Your task to perform on an android device: When is my next appointment? Image 0: 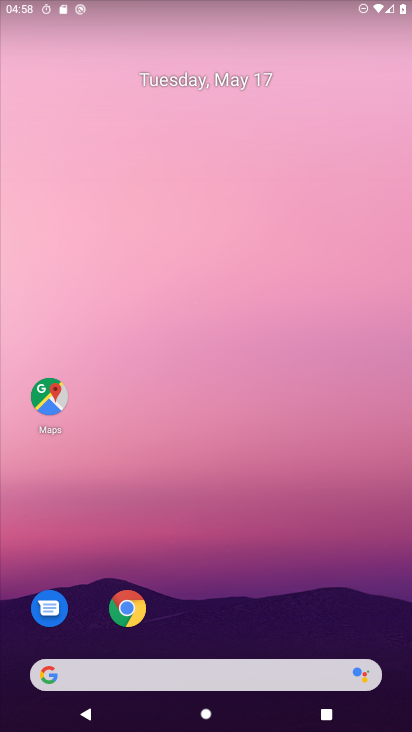
Step 0: drag from (163, 651) to (290, 255)
Your task to perform on an android device: When is my next appointment? Image 1: 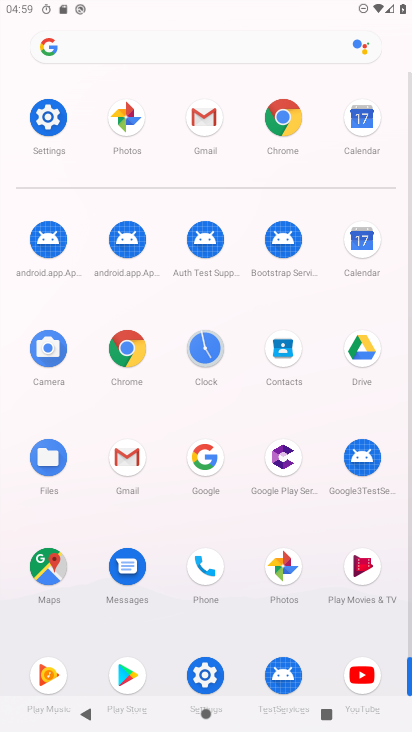
Step 1: click (364, 247)
Your task to perform on an android device: When is my next appointment? Image 2: 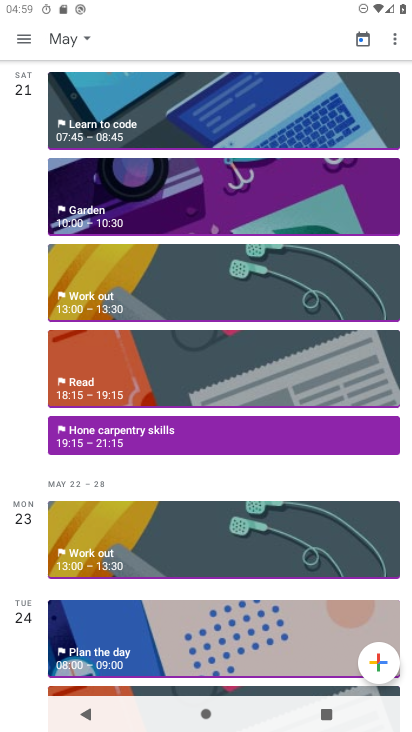
Step 2: drag from (206, 93) to (217, 424)
Your task to perform on an android device: When is my next appointment? Image 3: 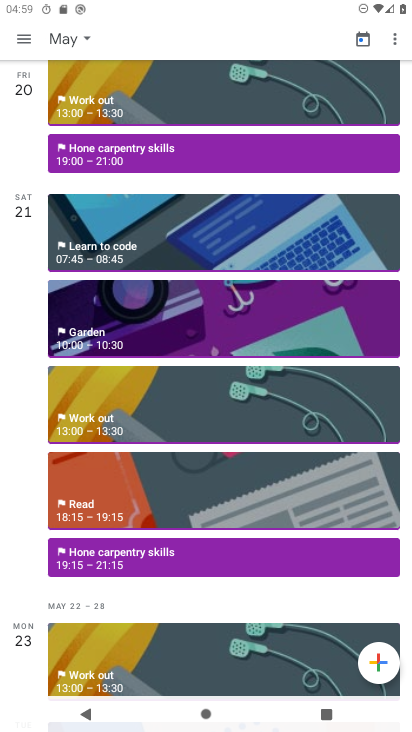
Step 3: drag from (186, 99) to (271, 478)
Your task to perform on an android device: When is my next appointment? Image 4: 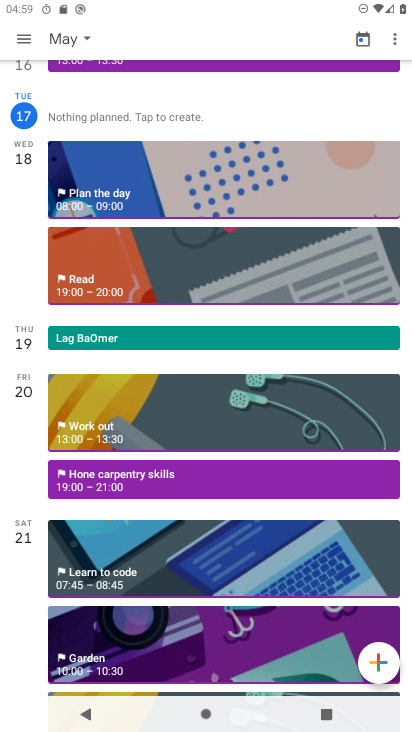
Step 4: drag from (166, 65) to (208, 365)
Your task to perform on an android device: When is my next appointment? Image 5: 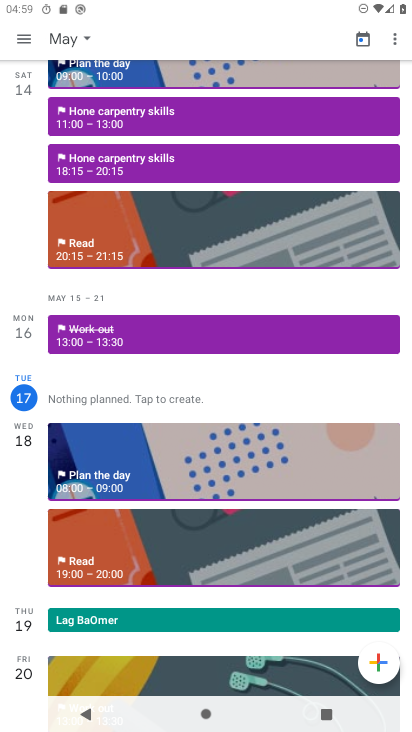
Step 5: click (94, 472)
Your task to perform on an android device: When is my next appointment? Image 6: 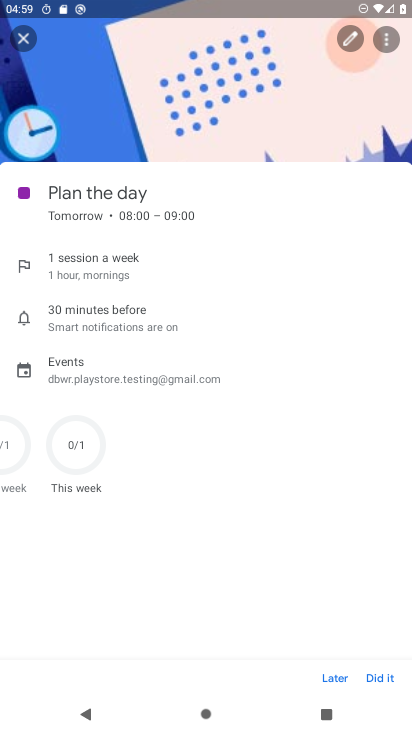
Step 6: task complete